Your task to perform on an android device: Search for "asus zenbook" on bestbuy.com, select the first entry, and add it to the cart. Image 0: 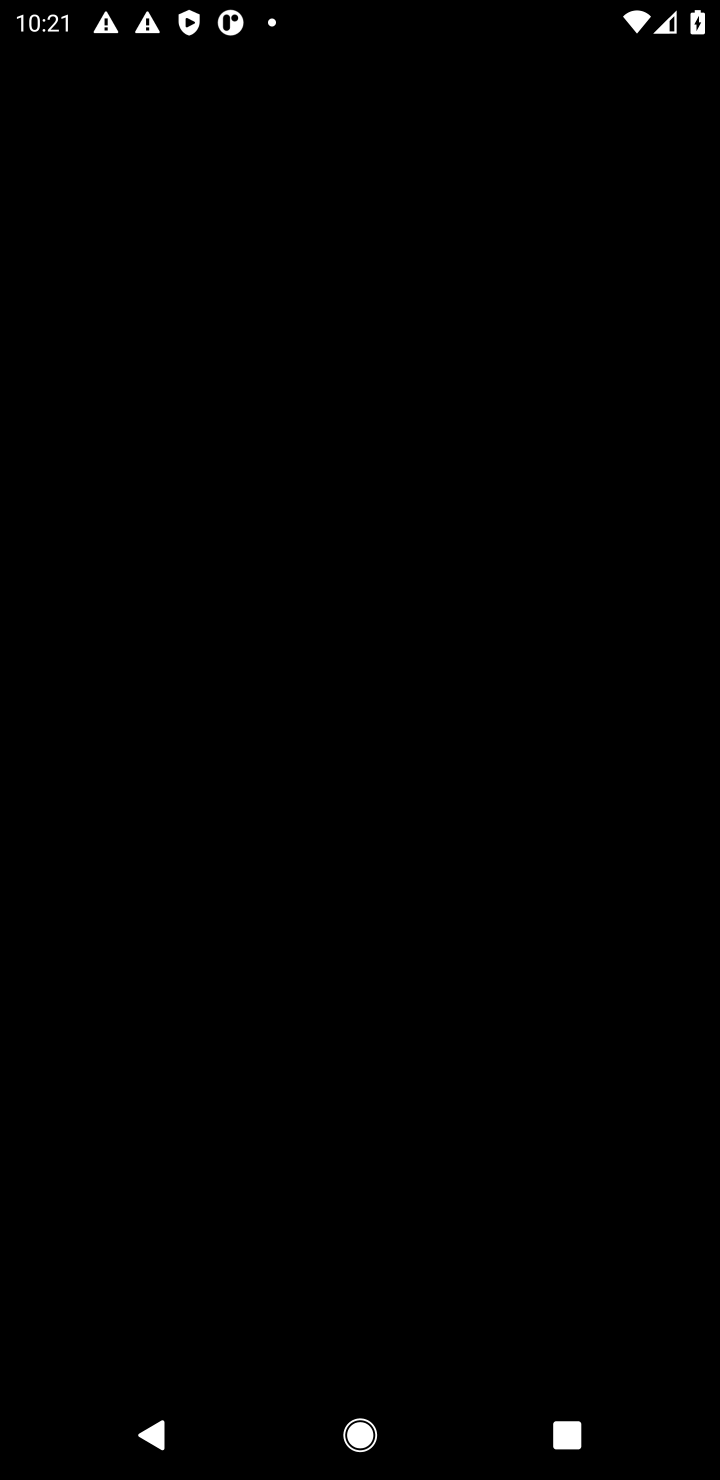
Step 0: press home button
Your task to perform on an android device: Search for "asus zenbook" on bestbuy.com, select the first entry, and add it to the cart. Image 1: 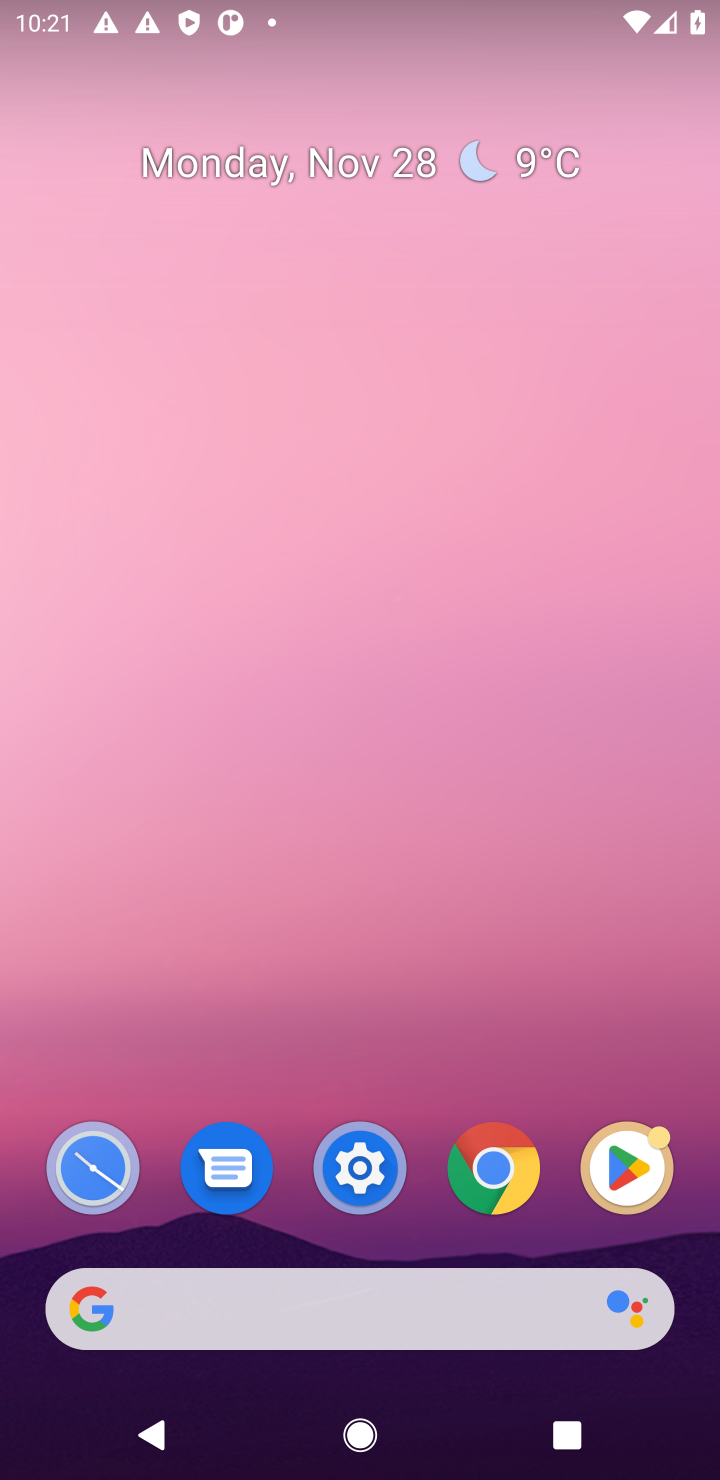
Step 1: click (227, 1335)
Your task to perform on an android device: Search for "asus zenbook" on bestbuy.com, select the first entry, and add it to the cart. Image 2: 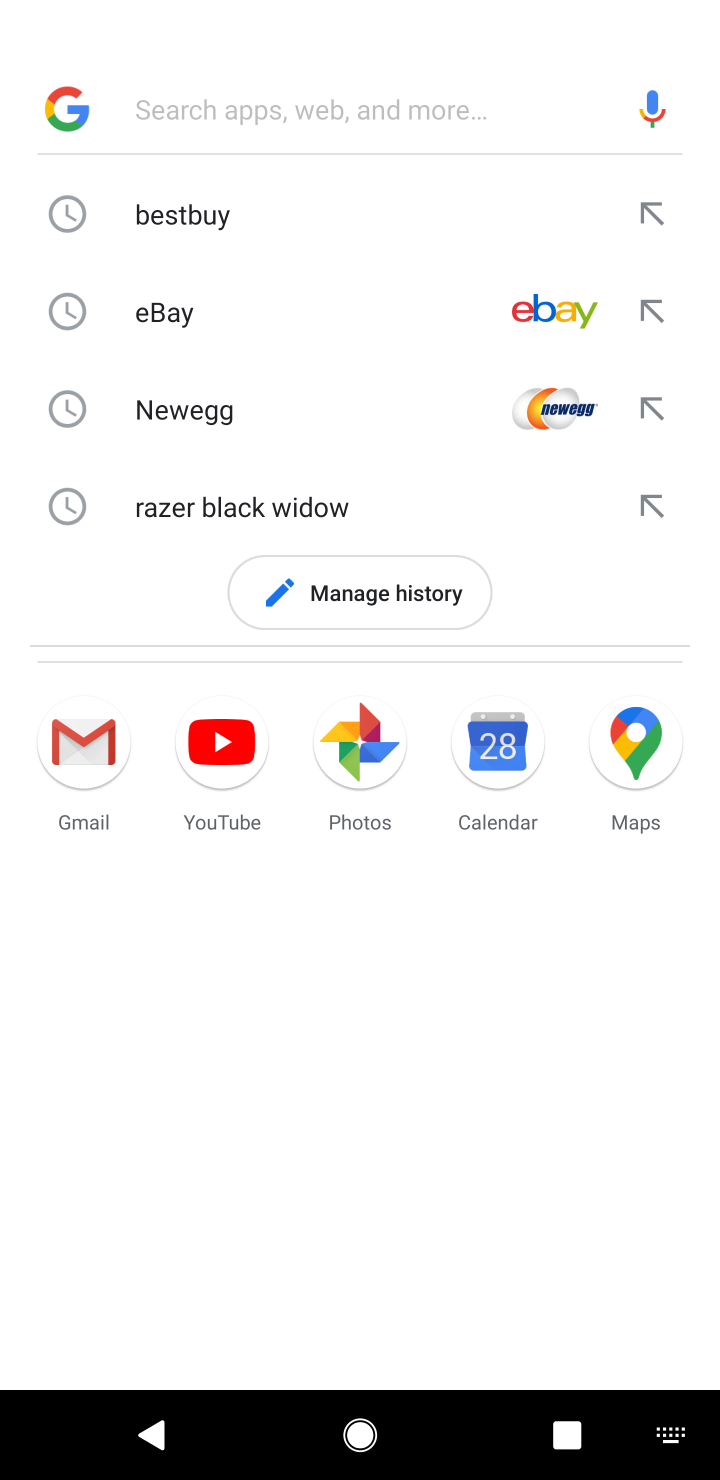
Step 2: type "bestbuy"
Your task to perform on an android device: Search for "asus zenbook" on bestbuy.com, select the first entry, and add it to the cart. Image 3: 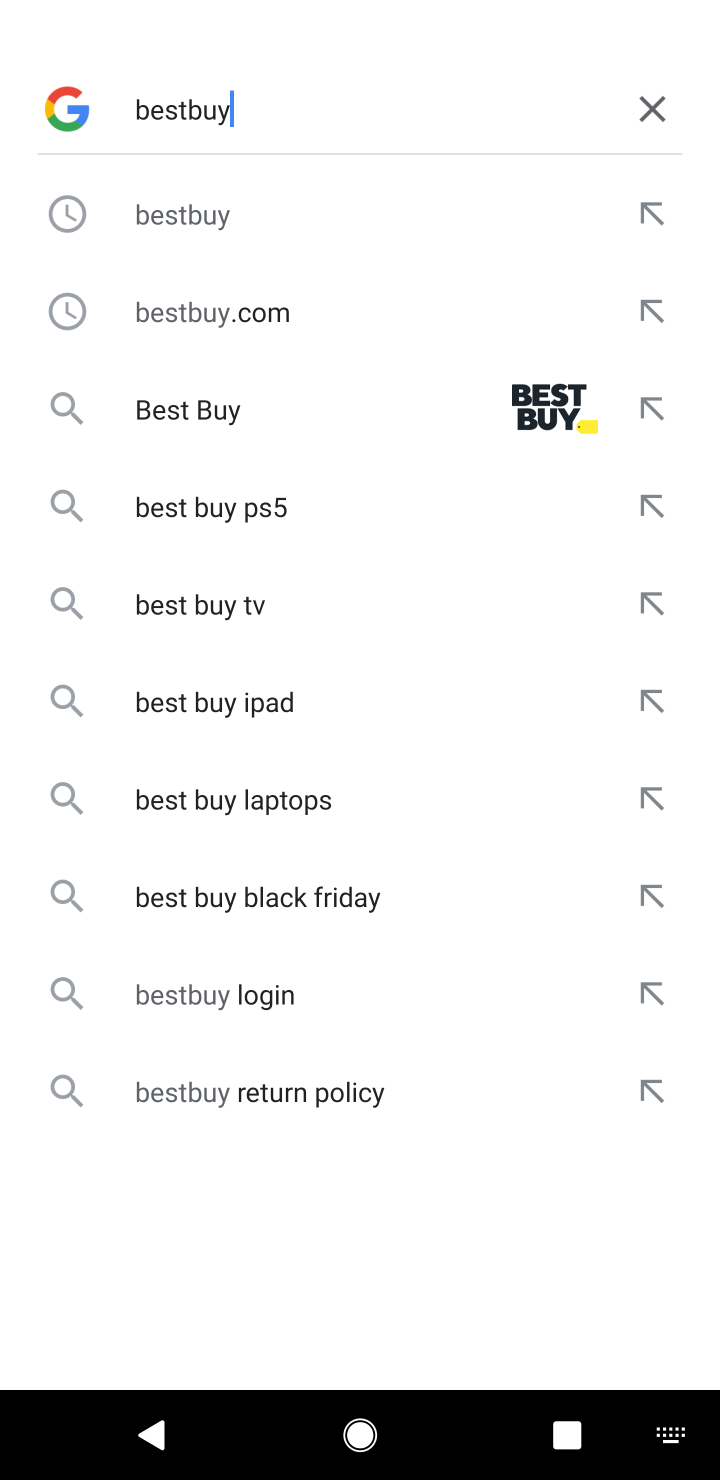
Step 3: click (190, 420)
Your task to perform on an android device: Search for "asus zenbook" on bestbuy.com, select the first entry, and add it to the cart. Image 4: 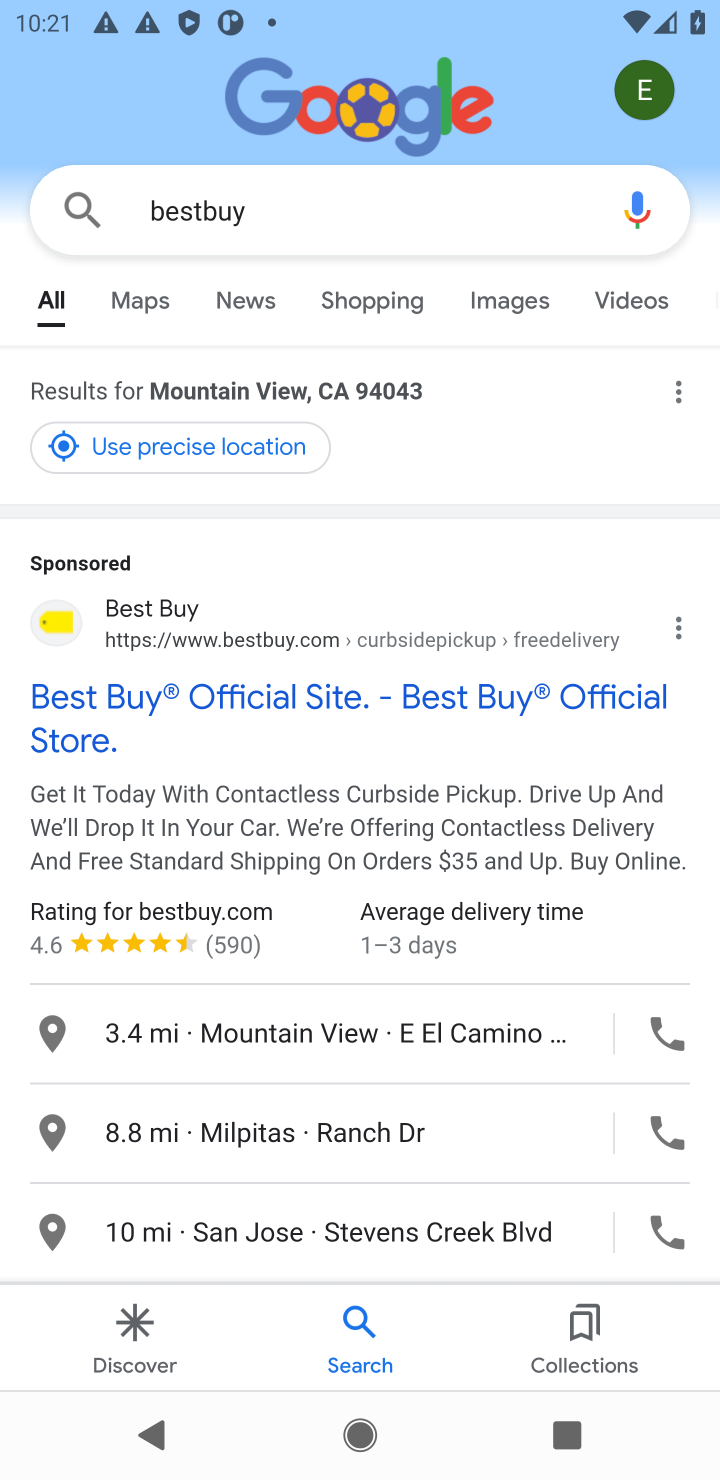
Step 4: click (165, 700)
Your task to perform on an android device: Search for "asus zenbook" on bestbuy.com, select the first entry, and add it to the cart. Image 5: 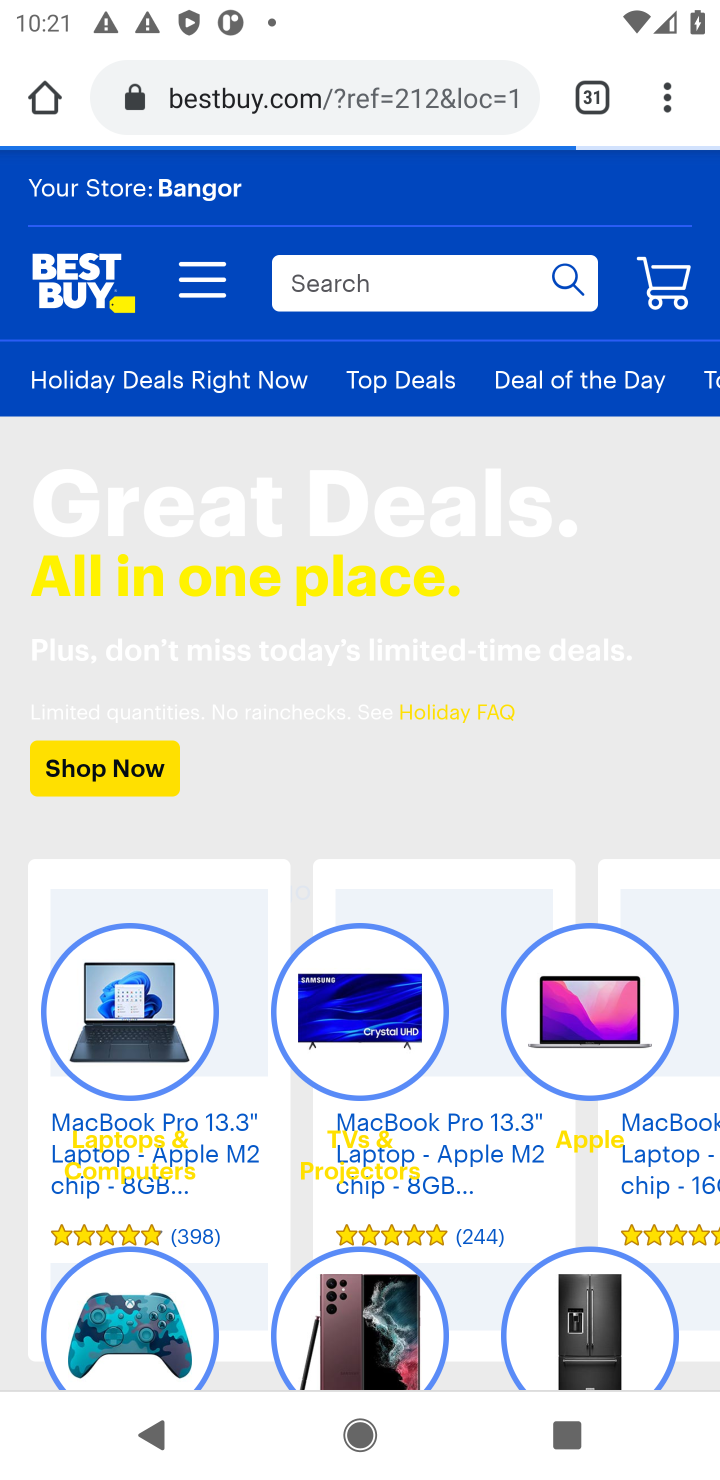
Step 5: click (339, 270)
Your task to perform on an android device: Search for "asus zenbook" on bestbuy.com, select the first entry, and add it to the cart. Image 6: 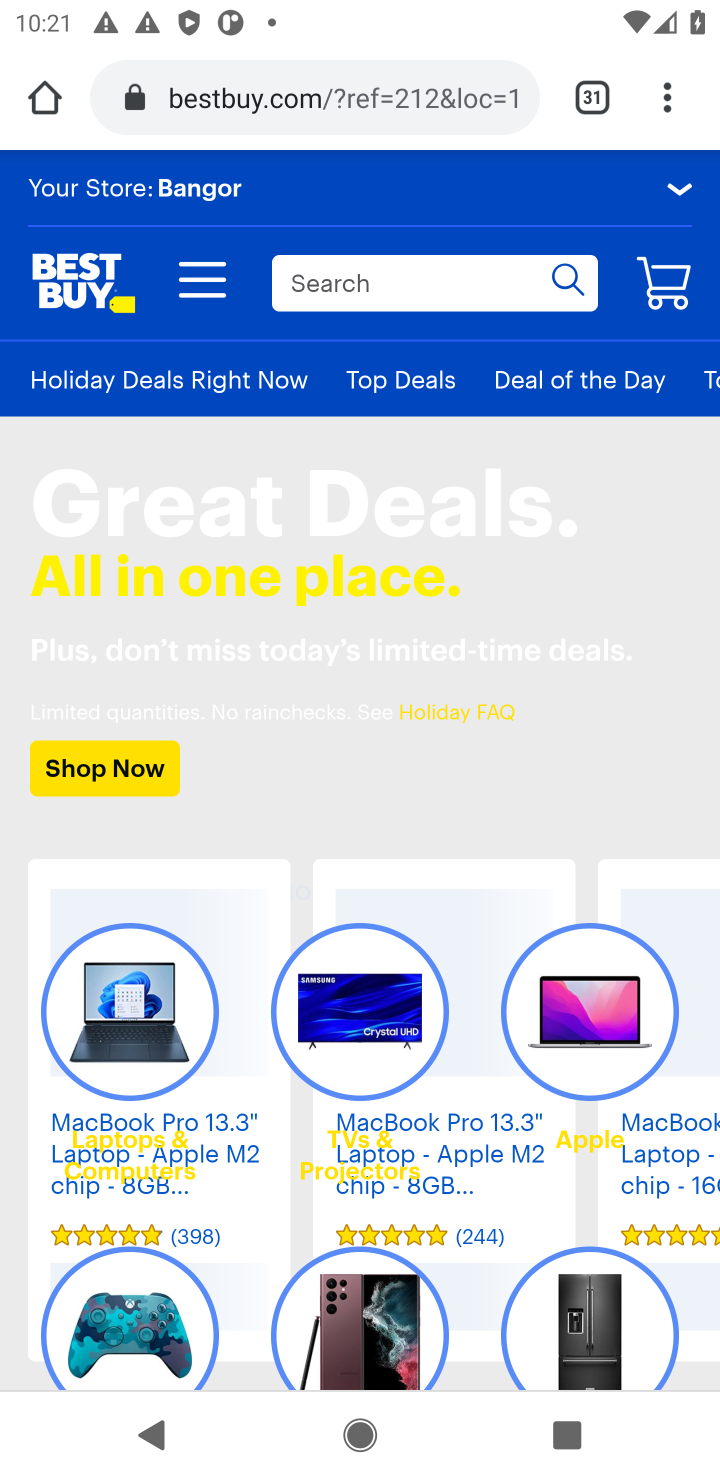
Step 6: type "asus zenbook"
Your task to perform on an android device: Search for "asus zenbook" on bestbuy.com, select the first entry, and add it to the cart. Image 7: 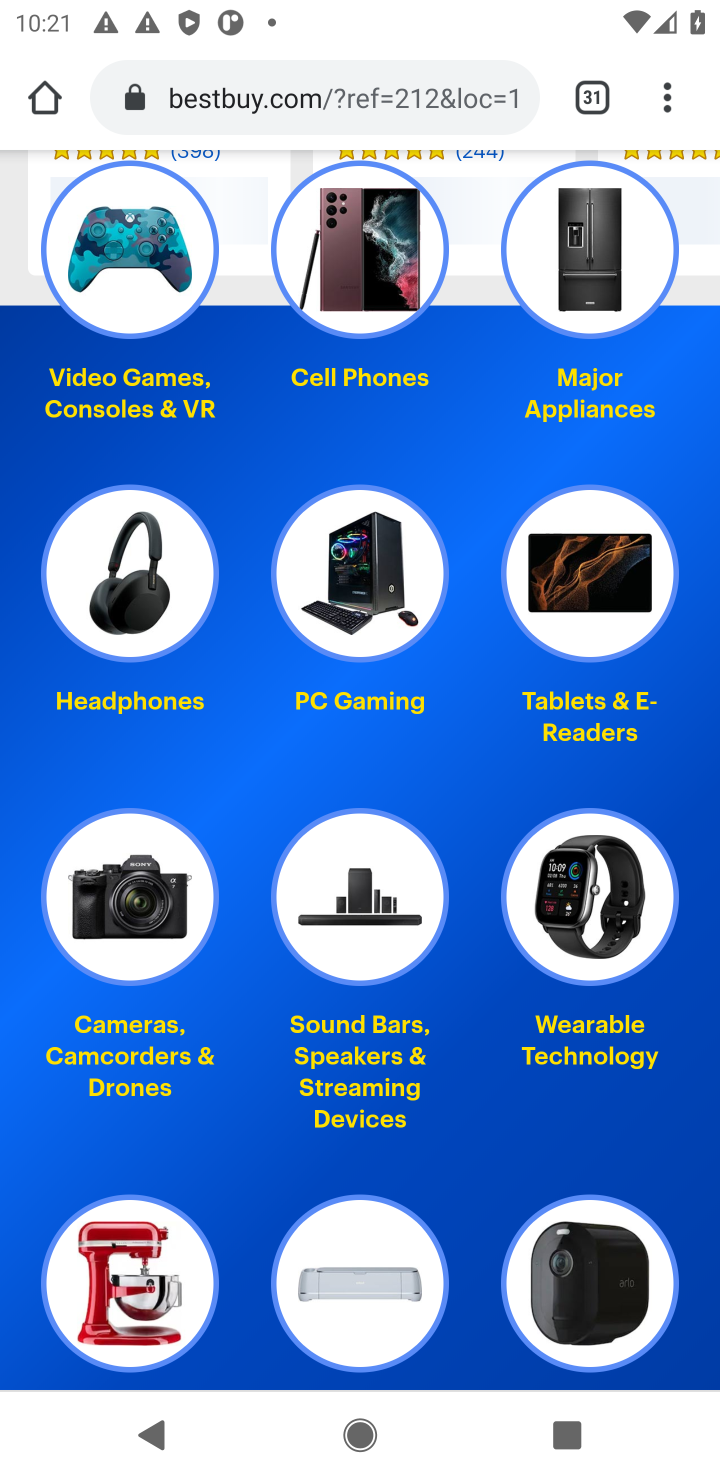
Step 7: task complete